Your task to perform on an android device: Open Reddit.com Image 0: 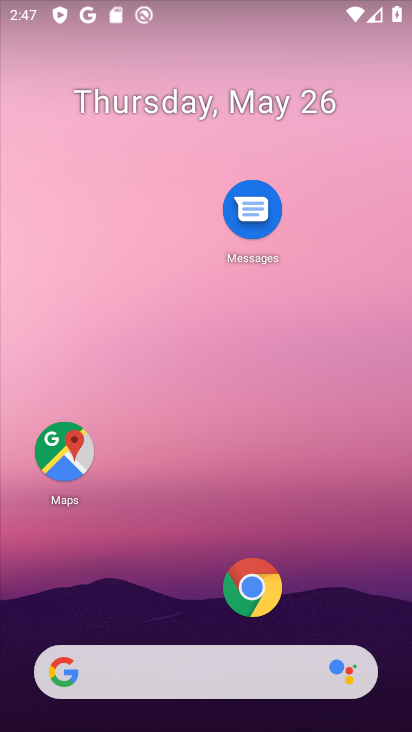
Step 0: click (261, 593)
Your task to perform on an android device: Open Reddit.com Image 1: 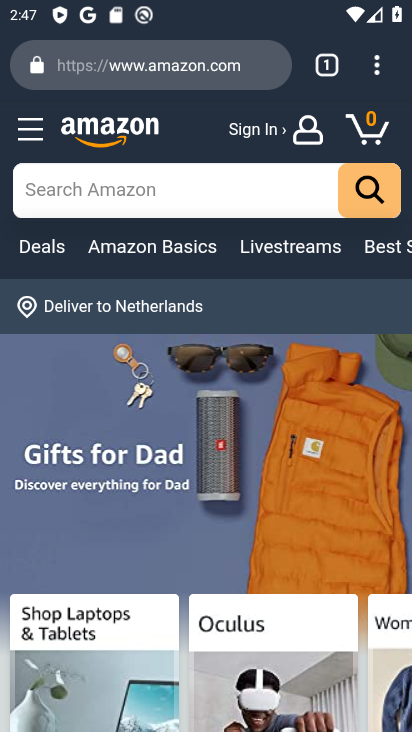
Step 1: click (165, 93)
Your task to perform on an android device: Open Reddit.com Image 2: 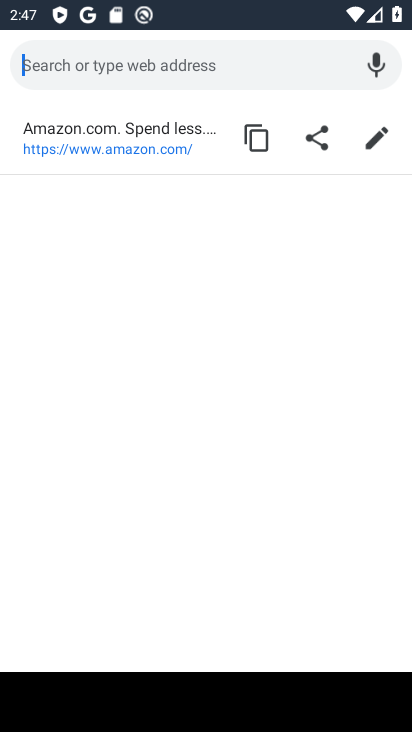
Step 2: type "Reddit.com"
Your task to perform on an android device: Open Reddit.com Image 3: 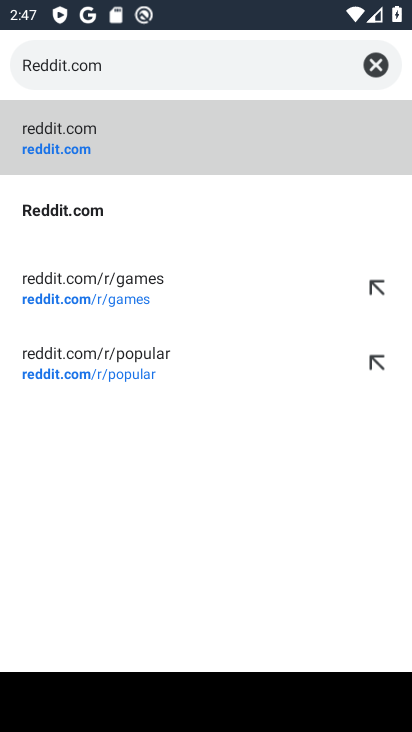
Step 3: click (72, 156)
Your task to perform on an android device: Open Reddit.com Image 4: 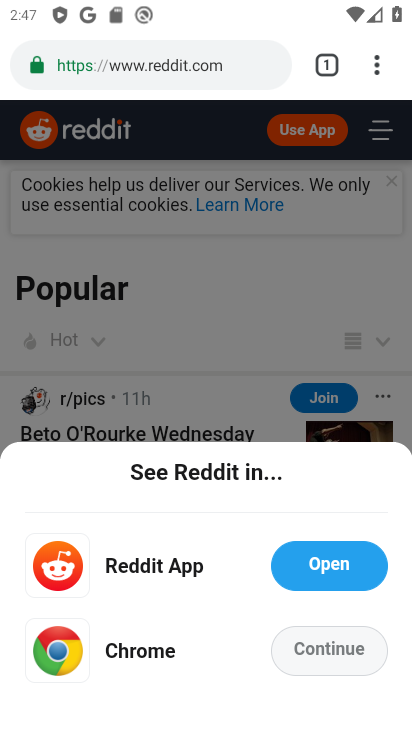
Step 4: task complete